Your task to perform on an android device: change timer sound Image 0: 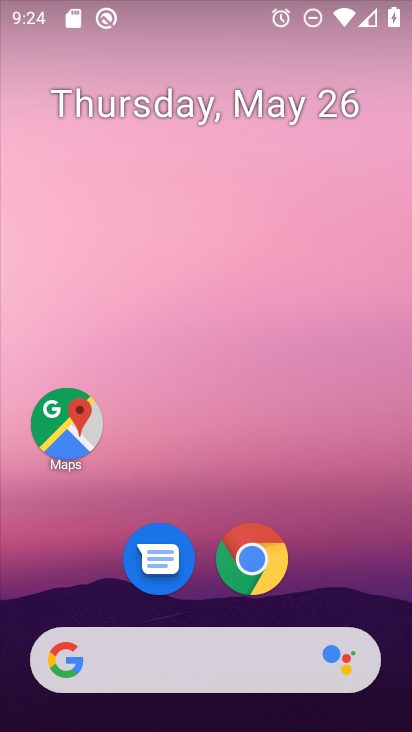
Step 0: drag from (348, 573) to (321, 153)
Your task to perform on an android device: change timer sound Image 1: 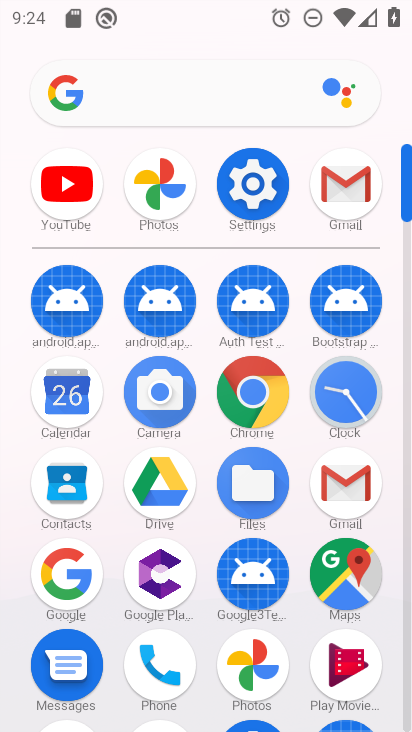
Step 1: click (338, 374)
Your task to perform on an android device: change timer sound Image 2: 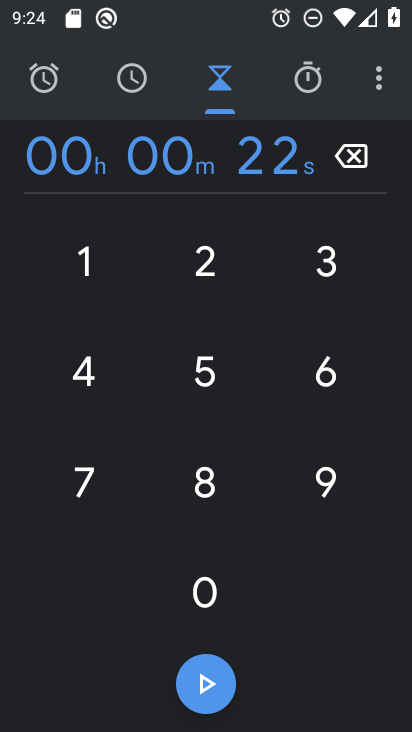
Step 2: click (366, 80)
Your task to perform on an android device: change timer sound Image 3: 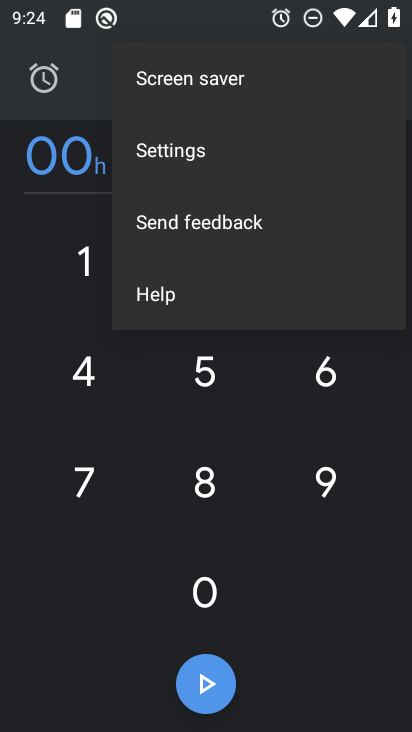
Step 3: click (244, 164)
Your task to perform on an android device: change timer sound Image 4: 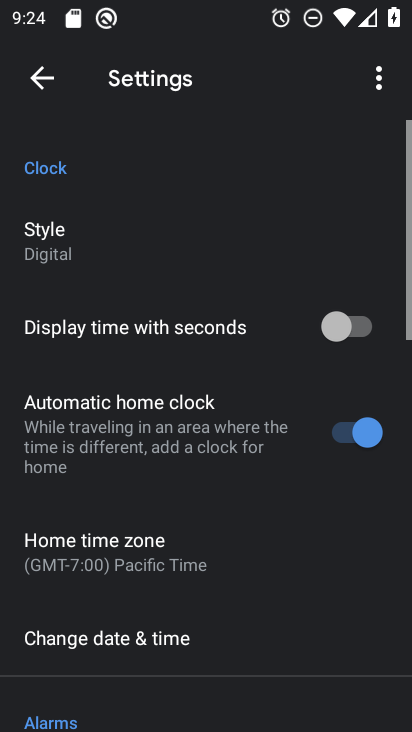
Step 4: drag from (322, 556) to (374, 9)
Your task to perform on an android device: change timer sound Image 5: 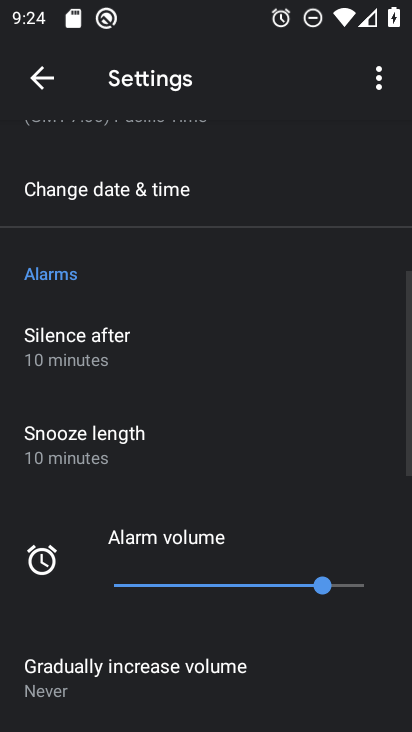
Step 5: drag from (193, 584) to (259, 71)
Your task to perform on an android device: change timer sound Image 6: 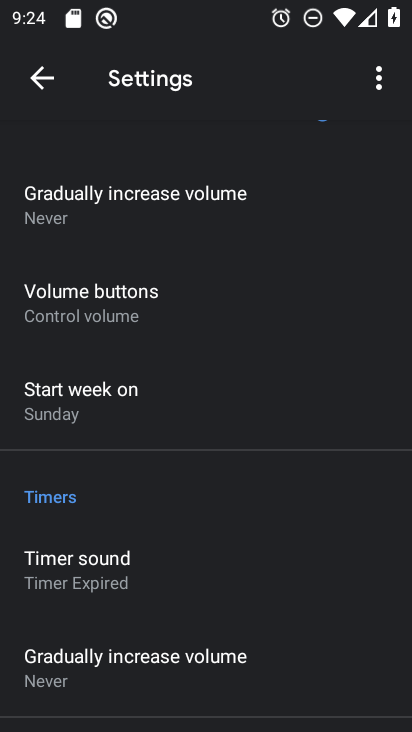
Step 6: click (120, 568)
Your task to perform on an android device: change timer sound Image 7: 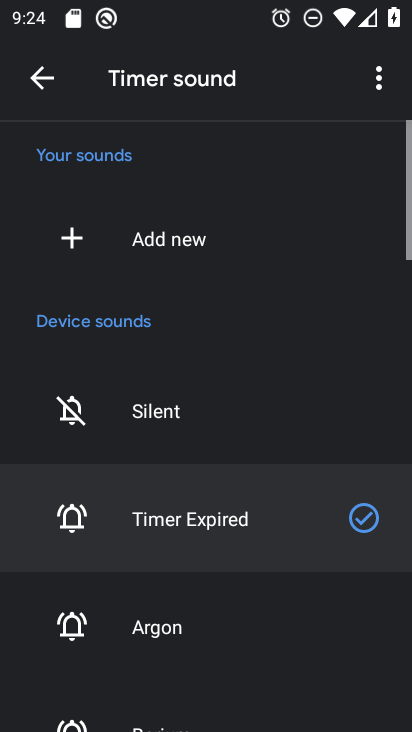
Step 7: click (141, 632)
Your task to perform on an android device: change timer sound Image 8: 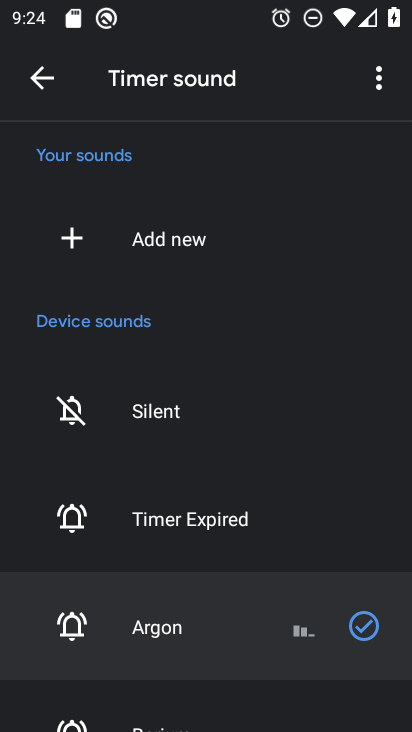
Step 8: task complete